Your task to perform on an android device: find which apps use the phone's location Image 0: 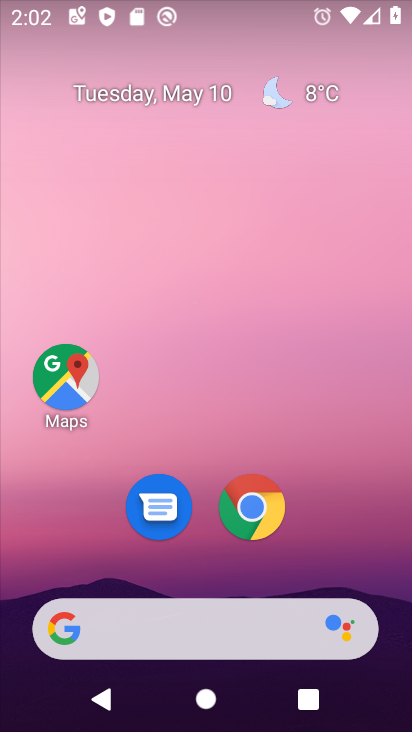
Step 0: drag from (231, 661) to (231, 58)
Your task to perform on an android device: find which apps use the phone's location Image 1: 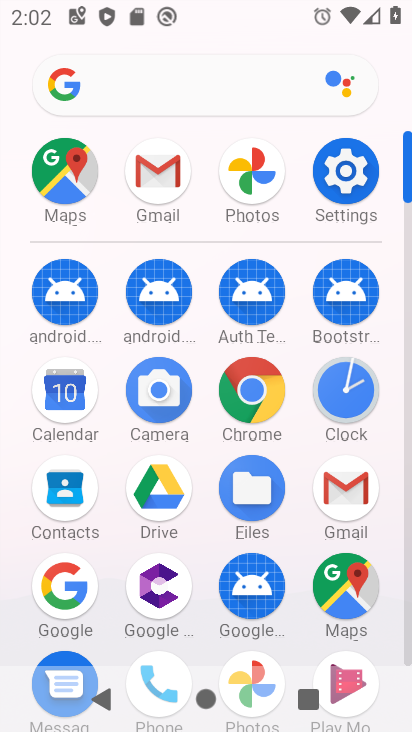
Step 1: drag from (301, 608) to (282, 221)
Your task to perform on an android device: find which apps use the phone's location Image 2: 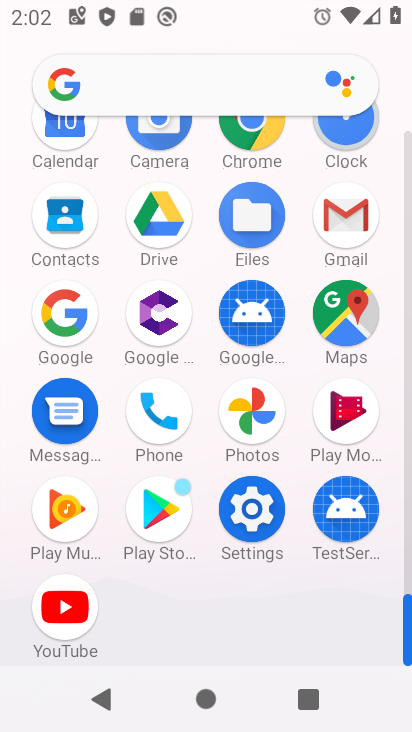
Step 2: click (253, 499)
Your task to perform on an android device: find which apps use the phone's location Image 3: 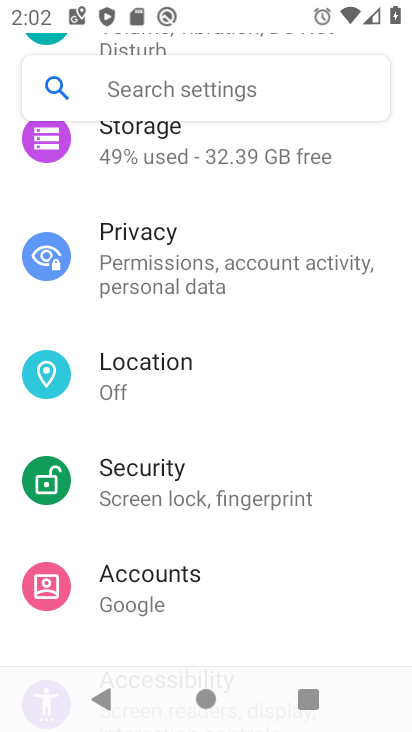
Step 3: drag from (166, 619) to (222, 276)
Your task to perform on an android device: find which apps use the phone's location Image 4: 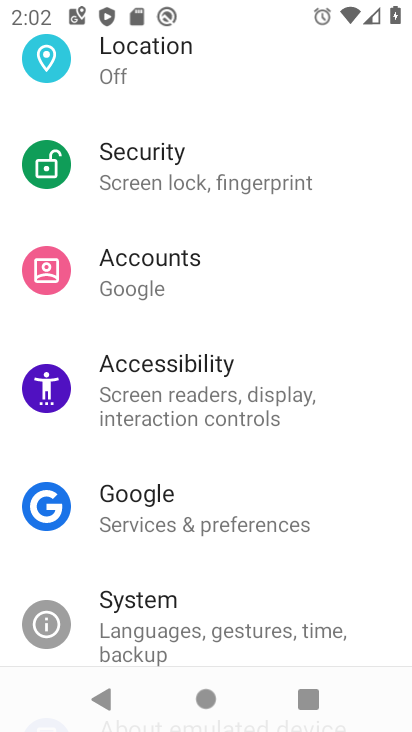
Step 4: drag from (316, 97) to (335, 482)
Your task to perform on an android device: find which apps use the phone's location Image 5: 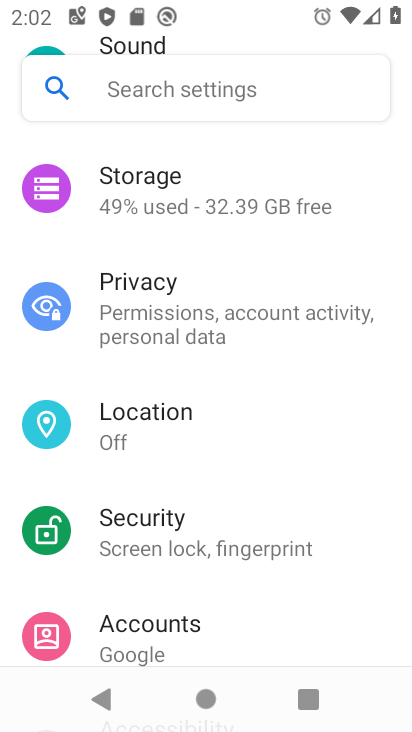
Step 5: click (124, 409)
Your task to perform on an android device: find which apps use the phone's location Image 6: 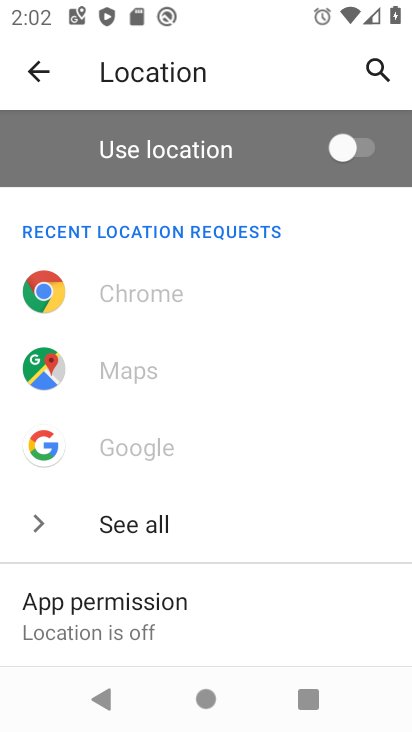
Step 6: drag from (228, 621) to (240, 303)
Your task to perform on an android device: find which apps use the phone's location Image 7: 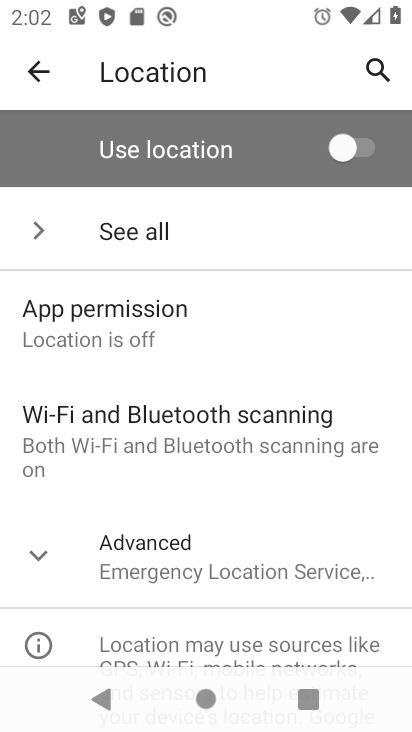
Step 7: click (101, 305)
Your task to perform on an android device: find which apps use the phone's location Image 8: 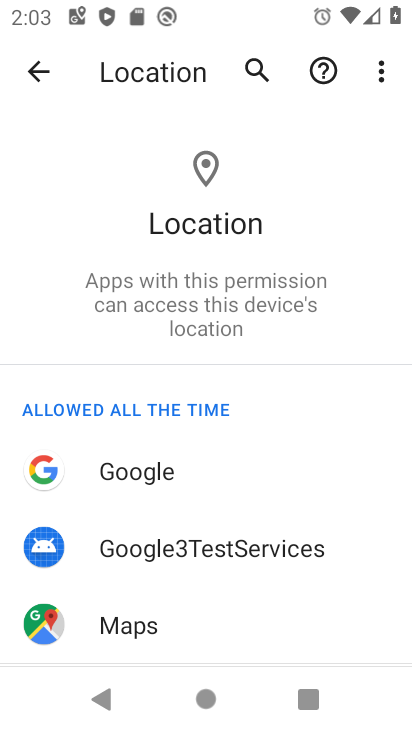
Step 8: task complete